Your task to perform on an android device: Go to wifi settings Image 0: 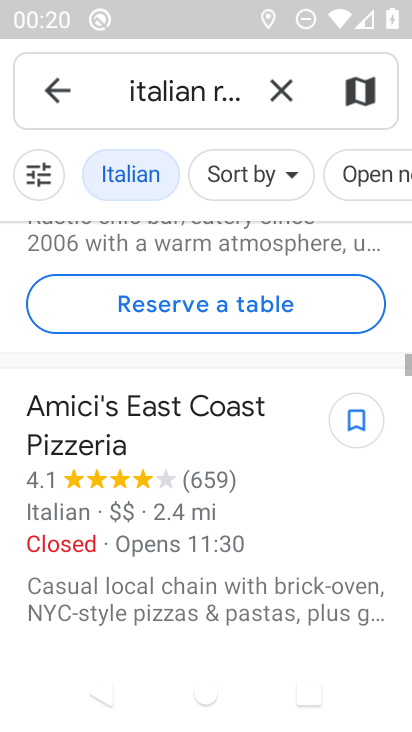
Step 0: drag from (201, 534) to (278, 93)
Your task to perform on an android device: Go to wifi settings Image 1: 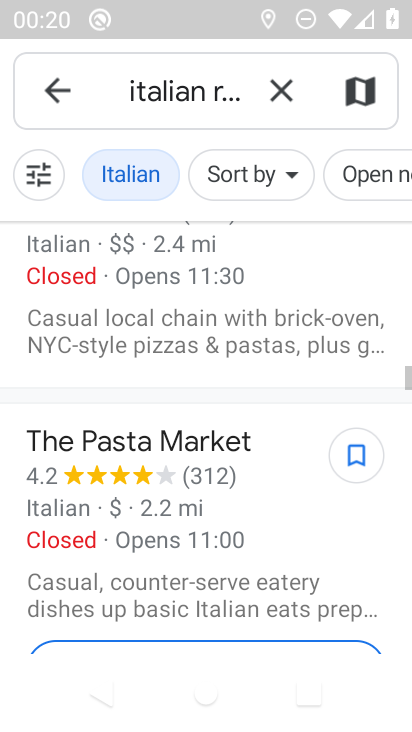
Step 1: drag from (218, 495) to (299, 108)
Your task to perform on an android device: Go to wifi settings Image 2: 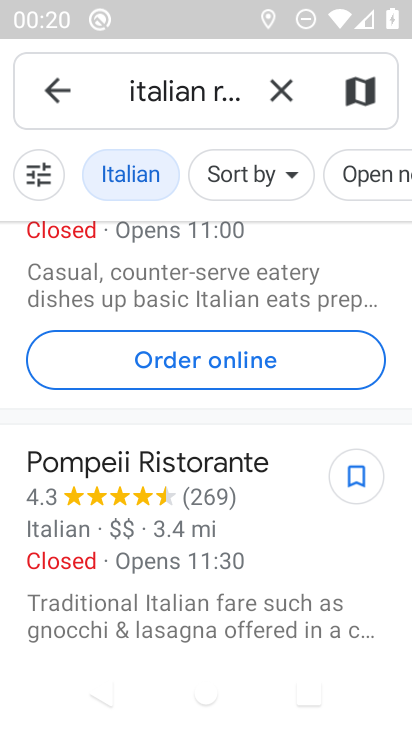
Step 2: press home button
Your task to perform on an android device: Go to wifi settings Image 3: 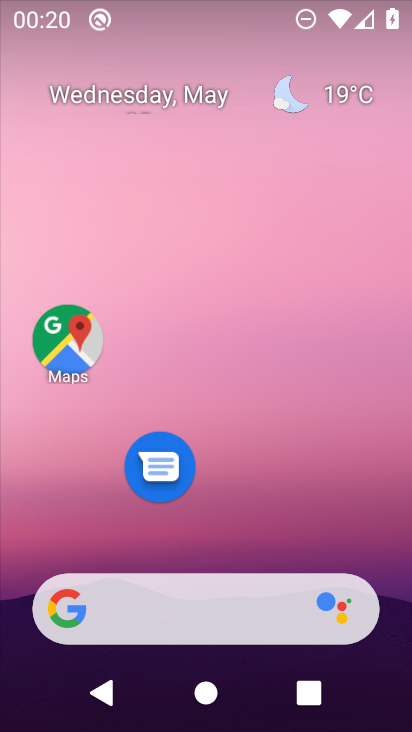
Step 3: drag from (212, 520) to (214, 236)
Your task to perform on an android device: Go to wifi settings Image 4: 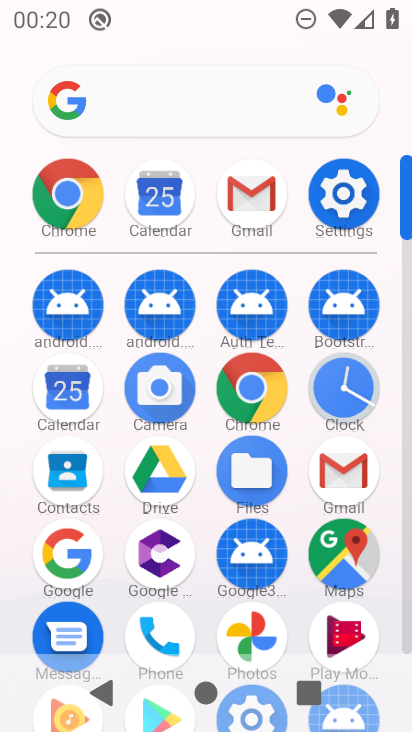
Step 4: click (360, 175)
Your task to perform on an android device: Go to wifi settings Image 5: 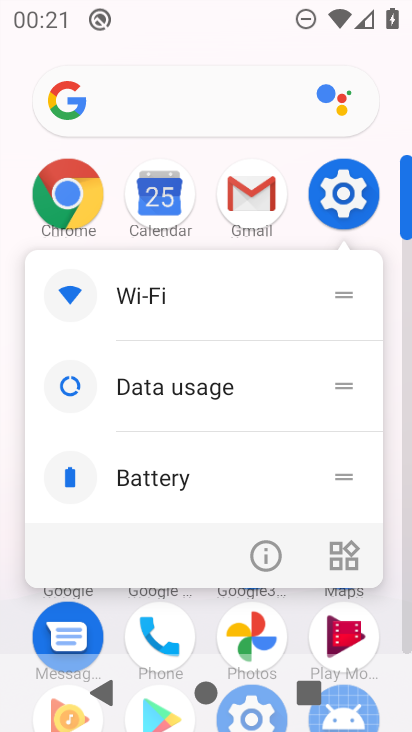
Step 5: click (267, 558)
Your task to perform on an android device: Go to wifi settings Image 6: 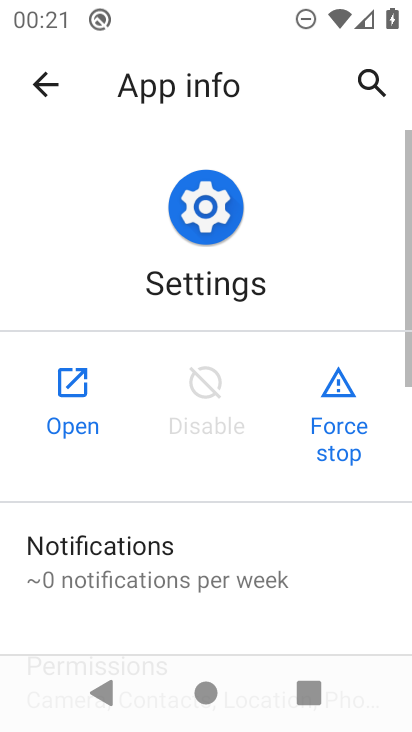
Step 6: click (76, 375)
Your task to perform on an android device: Go to wifi settings Image 7: 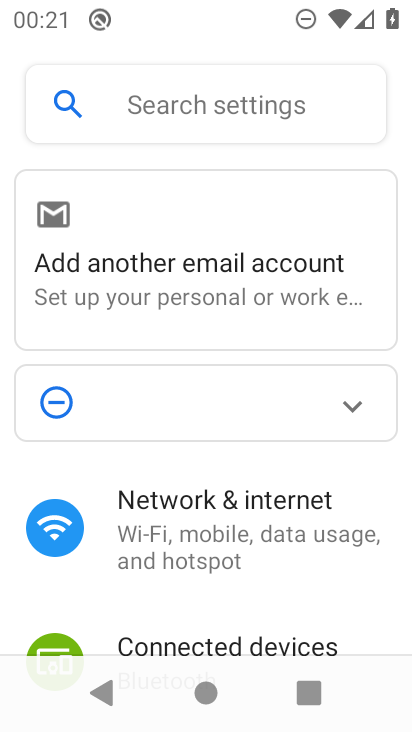
Step 7: drag from (201, 515) to (240, 251)
Your task to perform on an android device: Go to wifi settings Image 8: 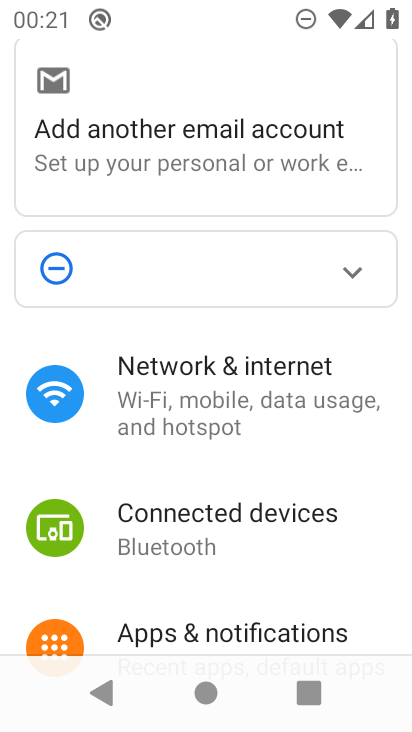
Step 8: click (198, 365)
Your task to perform on an android device: Go to wifi settings Image 9: 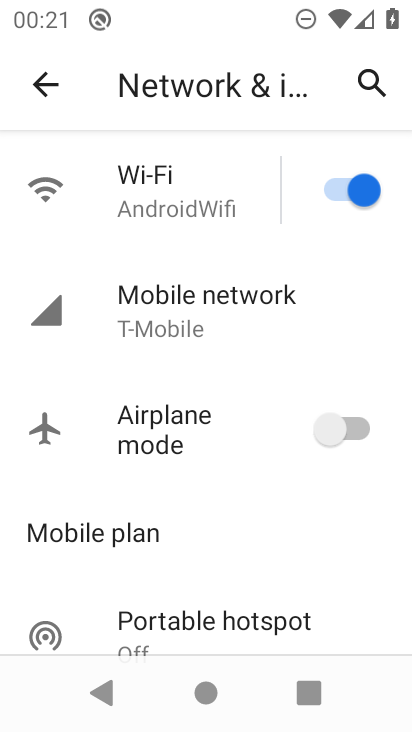
Step 9: click (193, 176)
Your task to perform on an android device: Go to wifi settings Image 10: 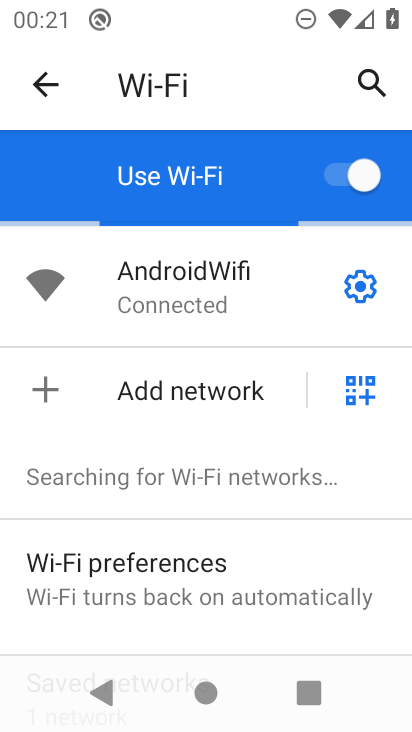
Step 10: click (361, 285)
Your task to perform on an android device: Go to wifi settings Image 11: 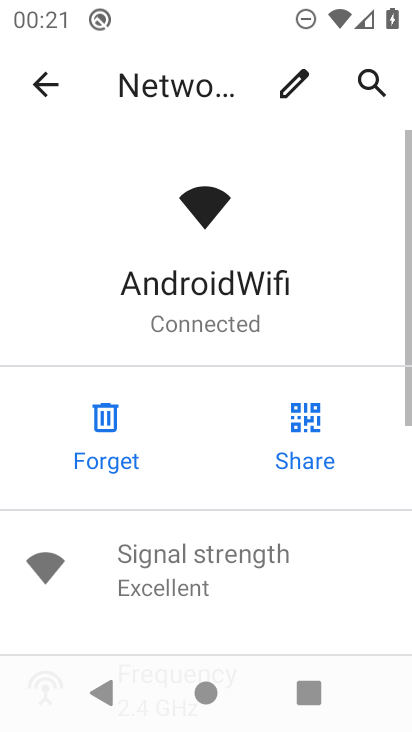
Step 11: task complete